Your task to perform on an android device: Open the web browser Image 0: 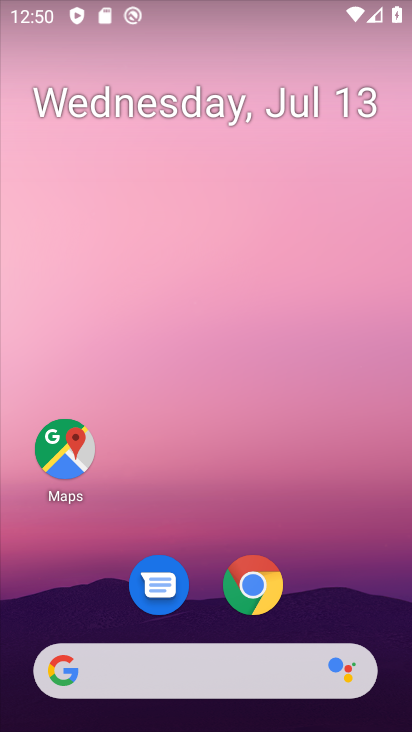
Step 0: click (250, 583)
Your task to perform on an android device: Open the web browser Image 1: 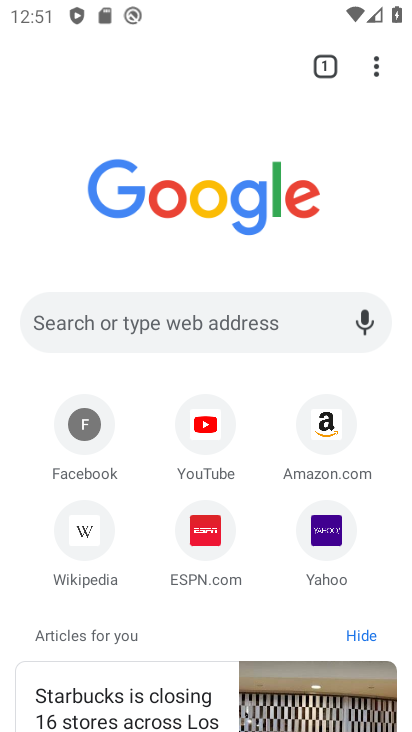
Step 1: task complete